Your task to perform on an android device: Search for Italian restaurants on Maps Image 0: 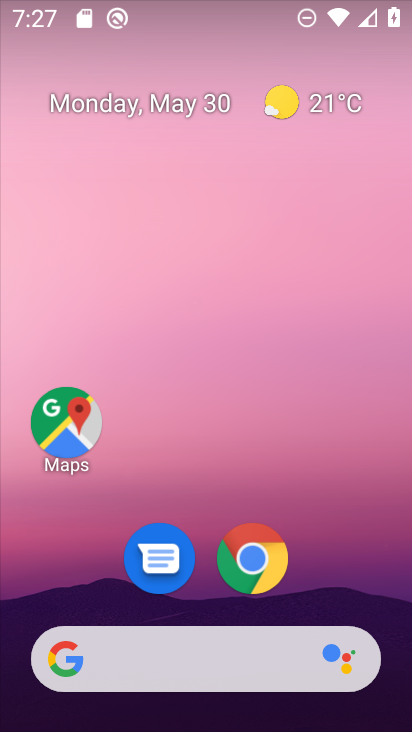
Step 0: click (71, 427)
Your task to perform on an android device: Search for Italian restaurants on Maps Image 1: 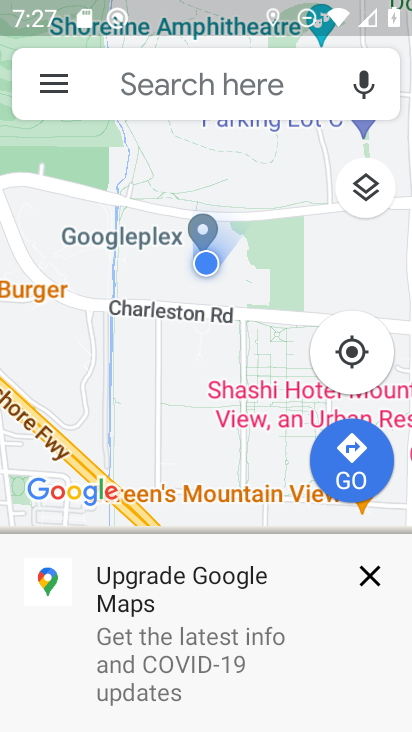
Step 1: click (137, 90)
Your task to perform on an android device: Search for Italian restaurants on Maps Image 2: 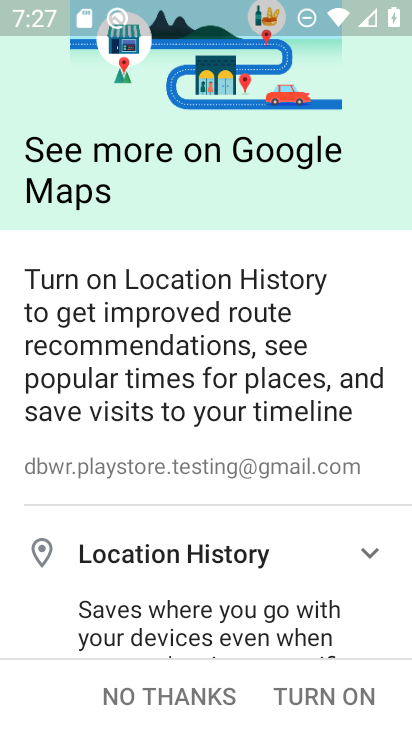
Step 2: click (333, 681)
Your task to perform on an android device: Search for Italian restaurants on Maps Image 3: 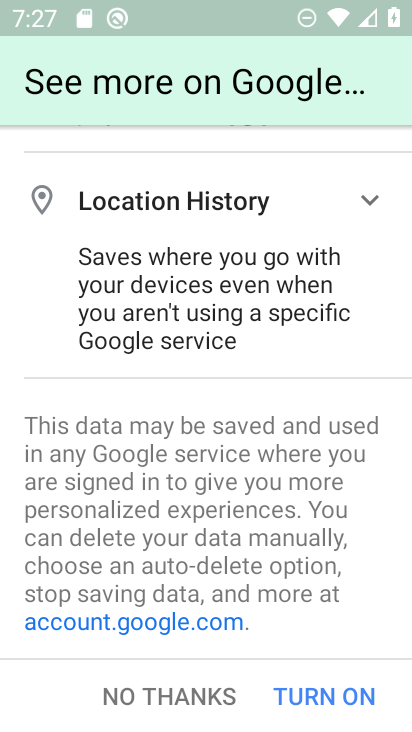
Step 3: click (323, 694)
Your task to perform on an android device: Search for Italian restaurants on Maps Image 4: 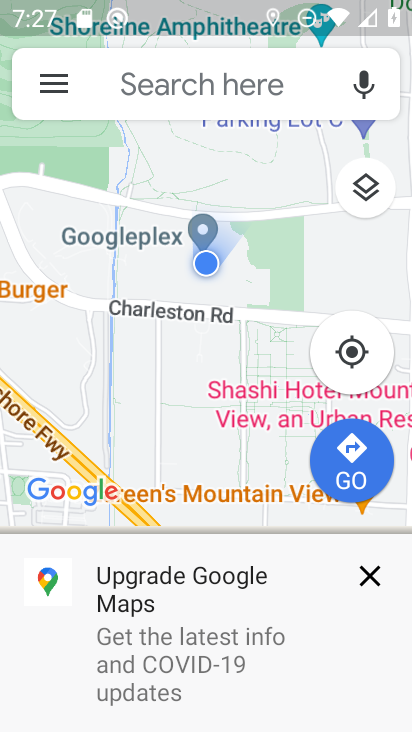
Step 4: click (163, 72)
Your task to perform on an android device: Search for Italian restaurants on Maps Image 5: 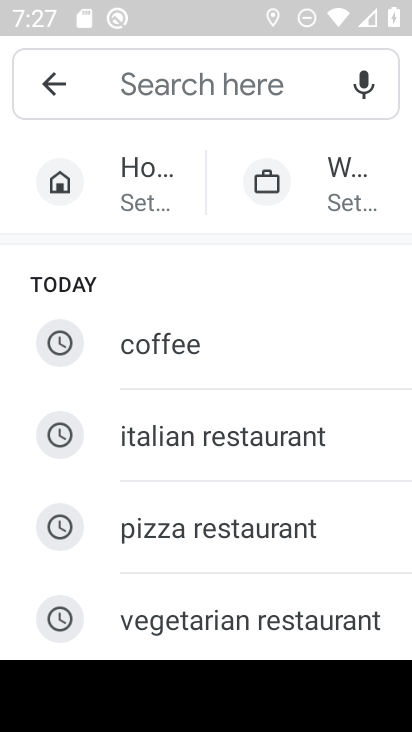
Step 5: click (204, 433)
Your task to perform on an android device: Search for Italian restaurants on Maps Image 6: 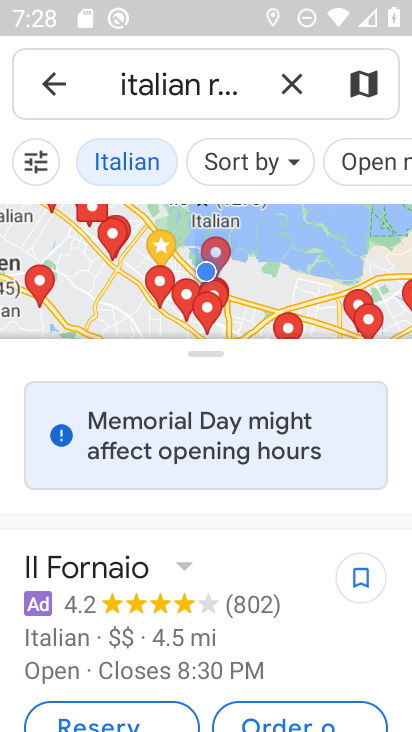
Step 6: task complete